Your task to perform on an android device: turn on data saver in the chrome app Image 0: 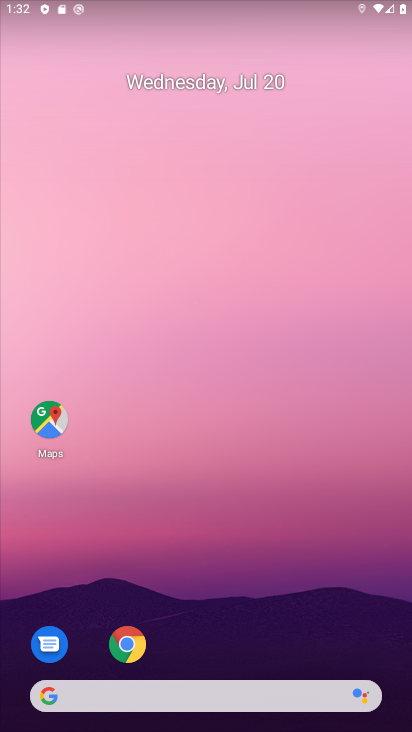
Step 0: click (136, 644)
Your task to perform on an android device: turn on data saver in the chrome app Image 1: 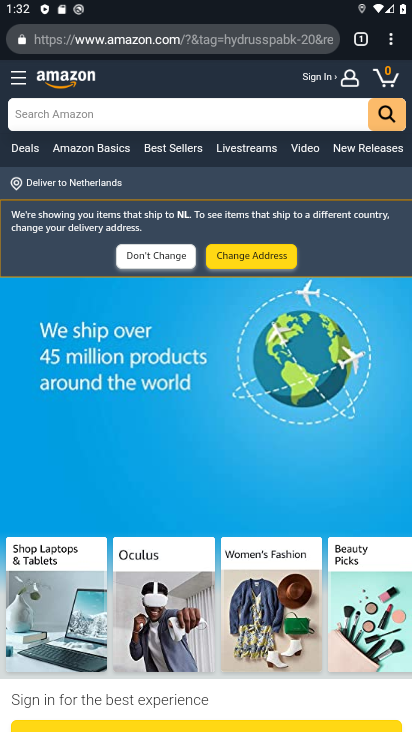
Step 1: click (395, 32)
Your task to perform on an android device: turn on data saver in the chrome app Image 2: 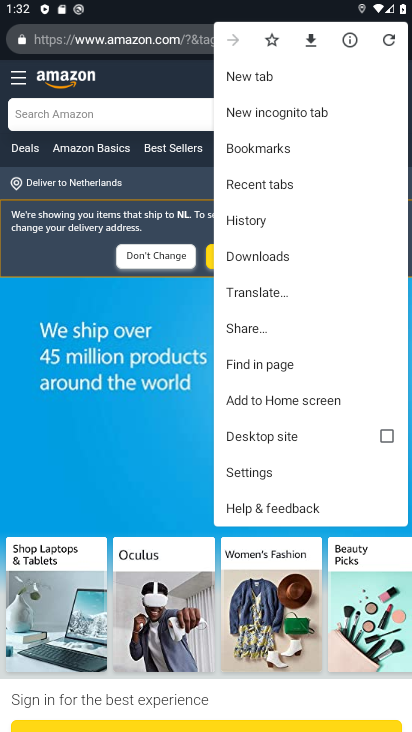
Step 2: click (284, 466)
Your task to perform on an android device: turn on data saver in the chrome app Image 3: 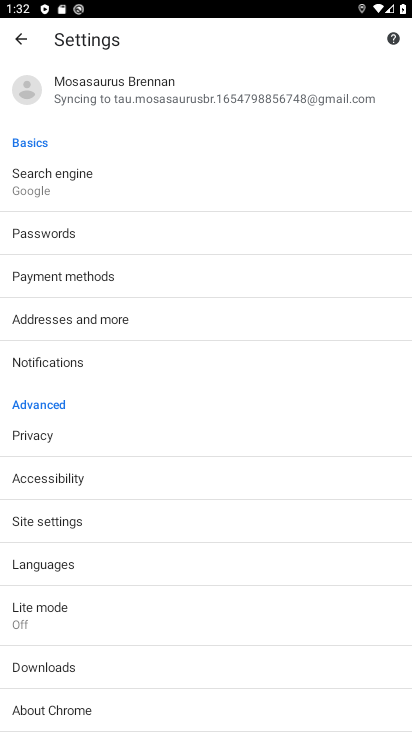
Step 3: click (65, 620)
Your task to perform on an android device: turn on data saver in the chrome app Image 4: 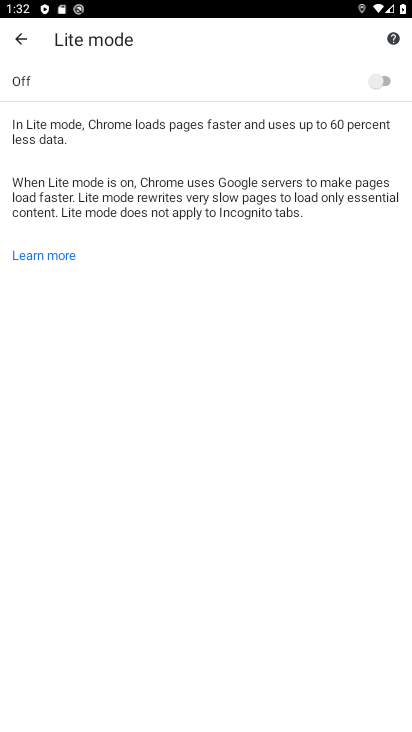
Step 4: click (381, 71)
Your task to perform on an android device: turn on data saver in the chrome app Image 5: 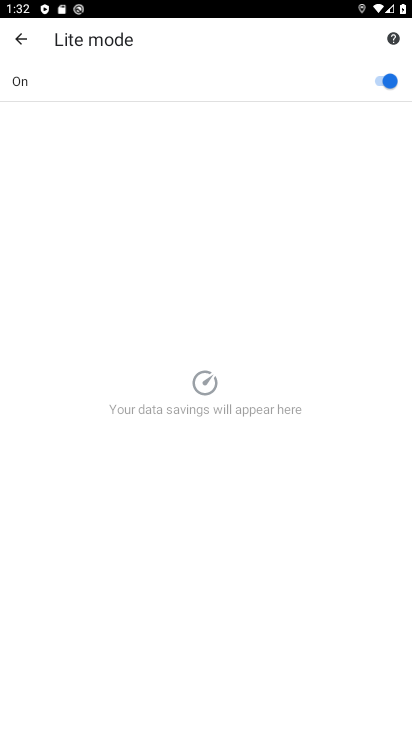
Step 5: task complete